Your task to perform on an android device: find photos in the google photos app Image 0: 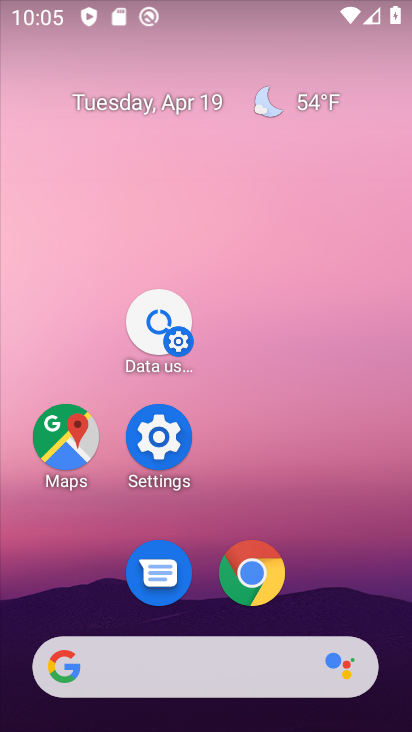
Step 0: drag from (353, 594) to (351, 34)
Your task to perform on an android device: find photos in the google photos app Image 1: 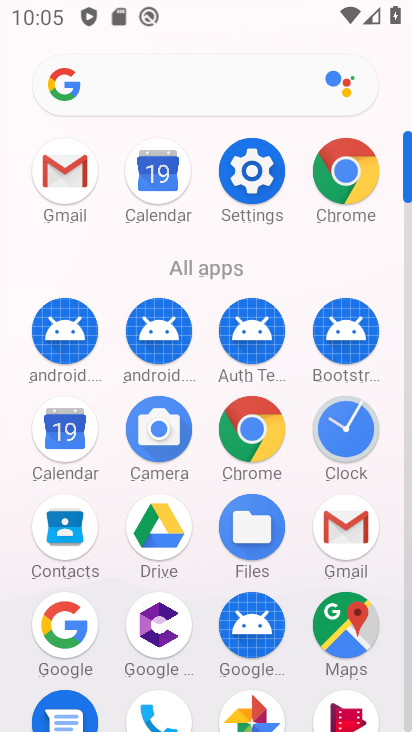
Step 1: click (408, 570)
Your task to perform on an android device: find photos in the google photos app Image 2: 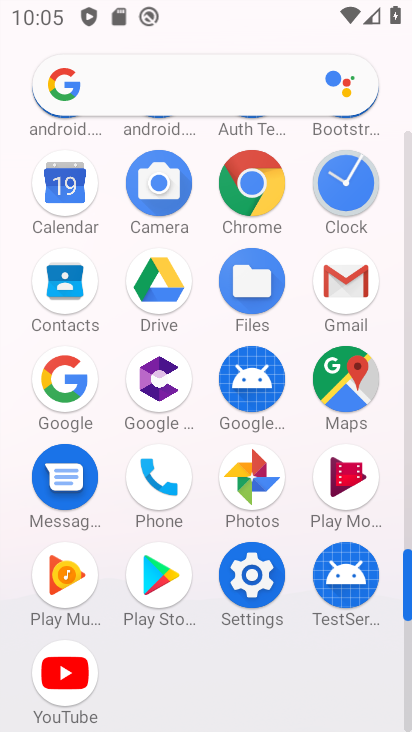
Step 2: click (252, 478)
Your task to perform on an android device: find photos in the google photos app Image 3: 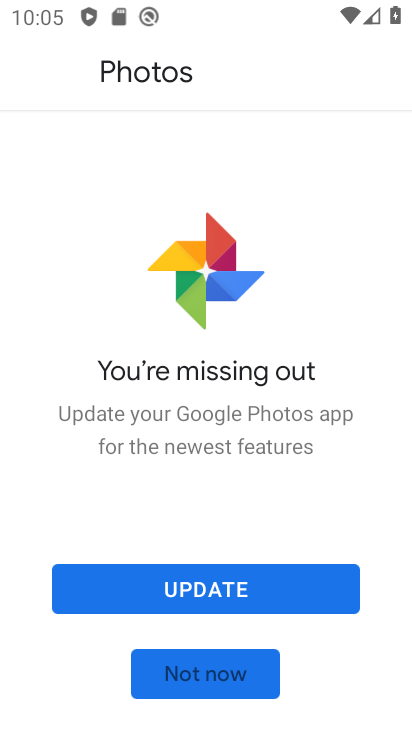
Step 3: click (184, 689)
Your task to perform on an android device: find photos in the google photos app Image 4: 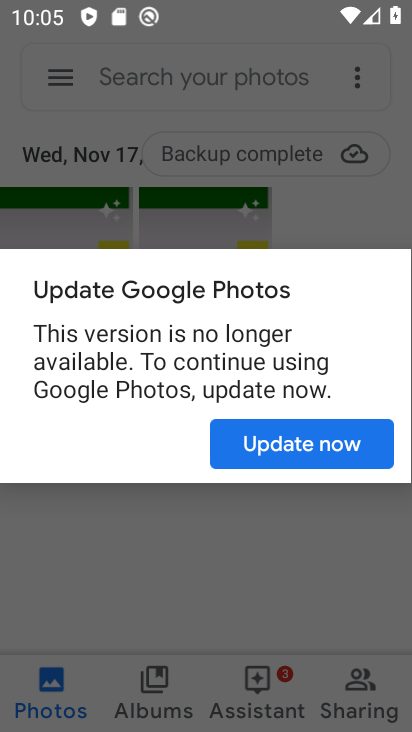
Step 4: click (296, 458)
Your task to perform on an android device: find photos in the google photos app Image 5: 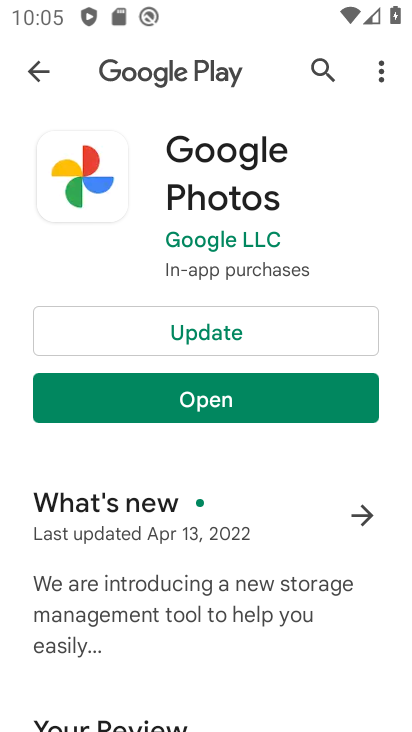
Step 5: click (205, 406)
Your task to perform on an android device: find photos in the google photos app Image 6: 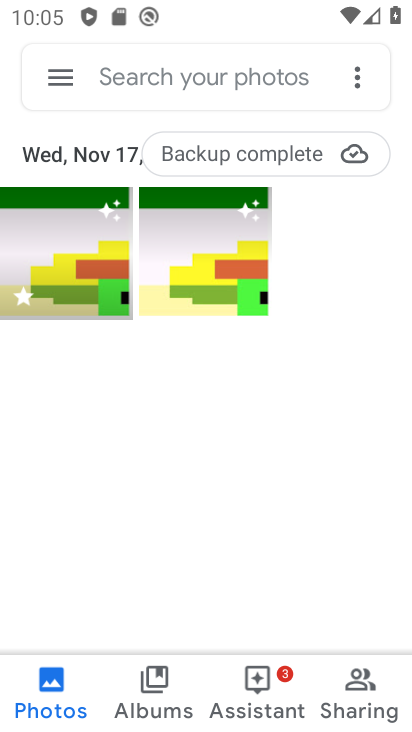
Step 6: click (51, 686)
Your task to perform on an android device: find photos in the google photos app Image 7: 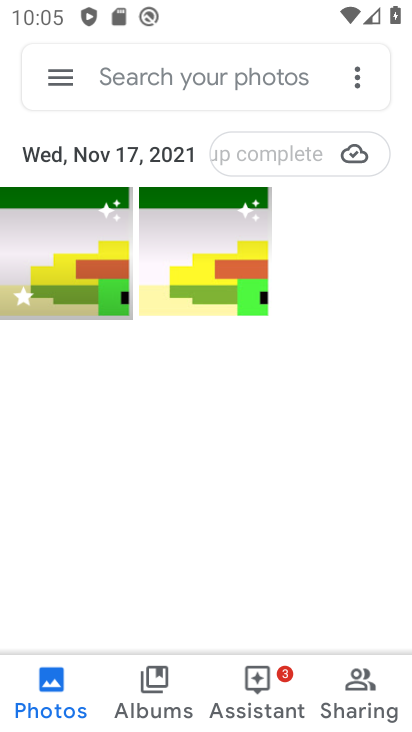
Step 7: task complete